Your task to perform on an android device: turn on airplane mode Image 0: 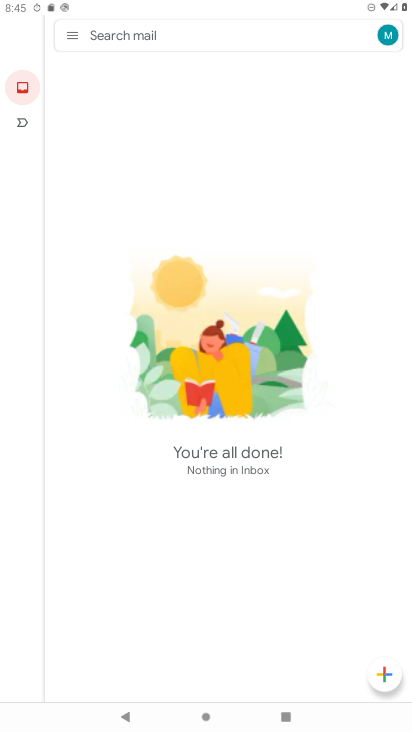
Step 0: press home button
Your task to perform on an android device: turn on airplane mode Image 1: 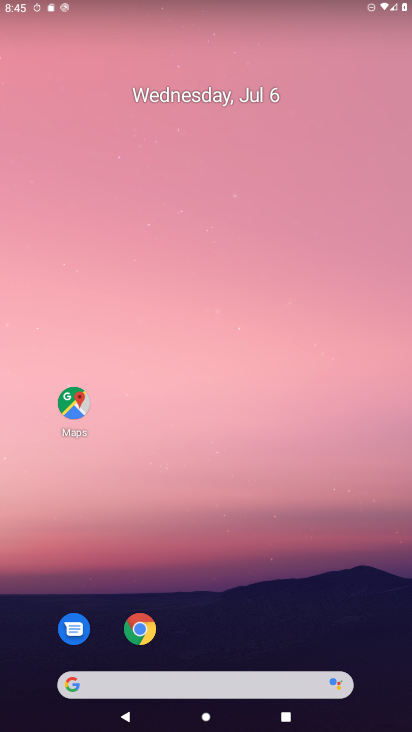
Step 1: drag from (249, 608) to (237, 69)
Your task to perform on an android device: turn on airplane mode Image 2: 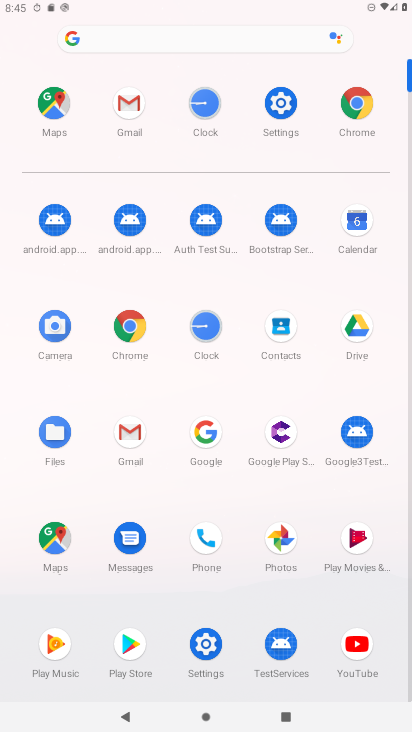
Step 2: click (276, 101)
Your task to perform on an android device: turn on airplane mode Image 3: 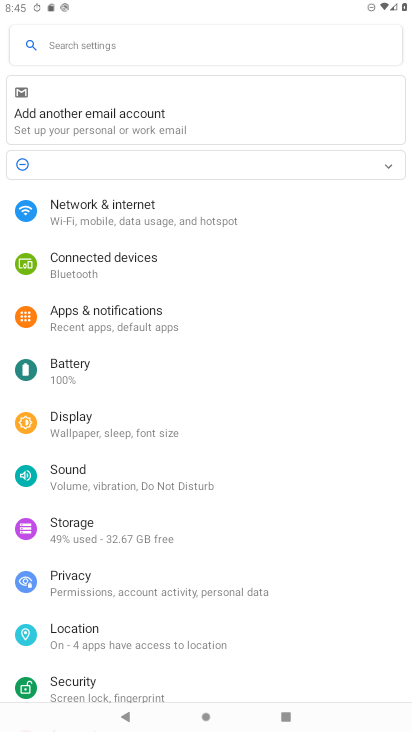
Step 3: click (126, 213)
Your task to perform on an android device: turn on airplane mode Image 4: 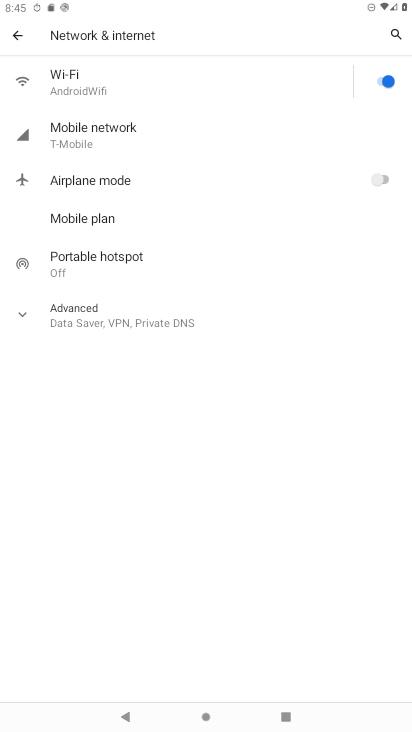
Step 4: click (383, 179)
Your task to perform on an android device: turn on airplane mode Image 5: 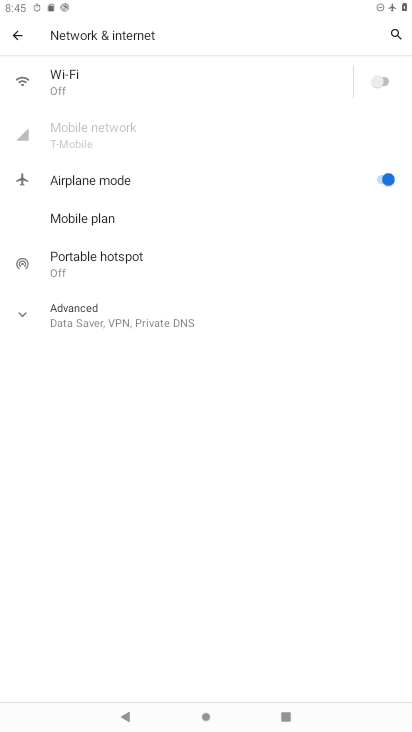
Step 5: task complete